Your task to perform on an android device: turn off translation in the chrome app Image 0: 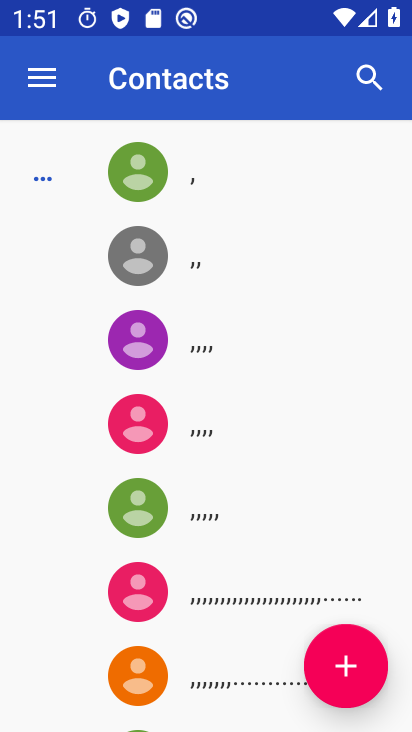
Step 0: press home button
Your task to perform on an android device: turn off translation in the chrome app Image 1: 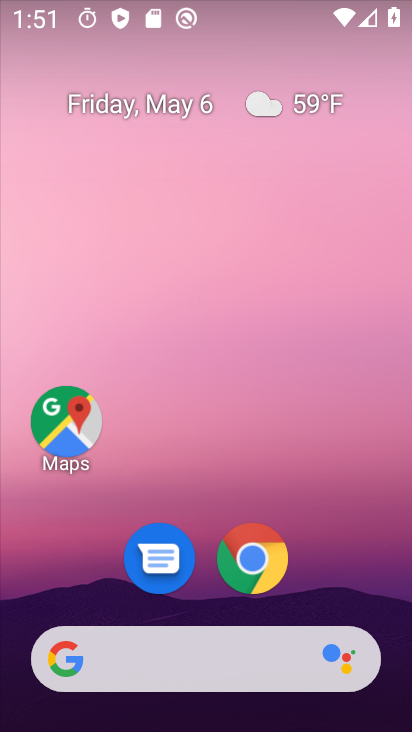
Step 1: drag from (206, 720) to (171, 265)
Your task to perform on an android device: turn off translation in the chrome app Image 2: 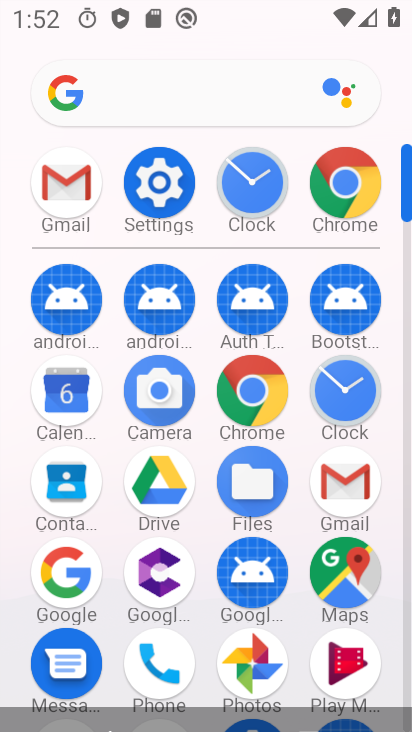
Step 2: click (349, 183)
Your task to perform on an android device: turn off translation in the chrome app Image 3: 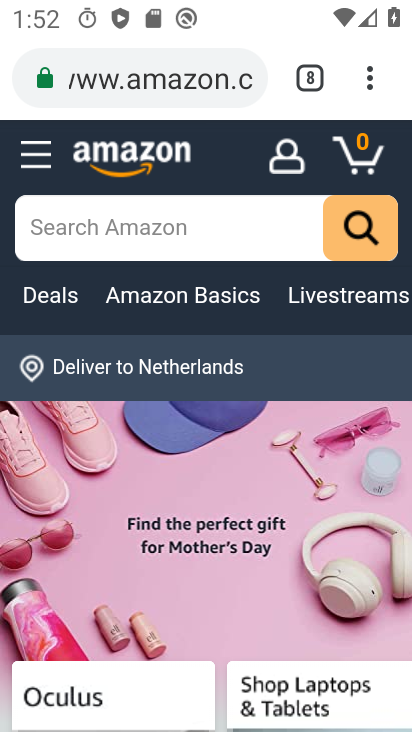
Step 3: drag from (368, 79) to (121, 601)
Your task to perform on an android device: turn off translation in the chrome app Image 4: 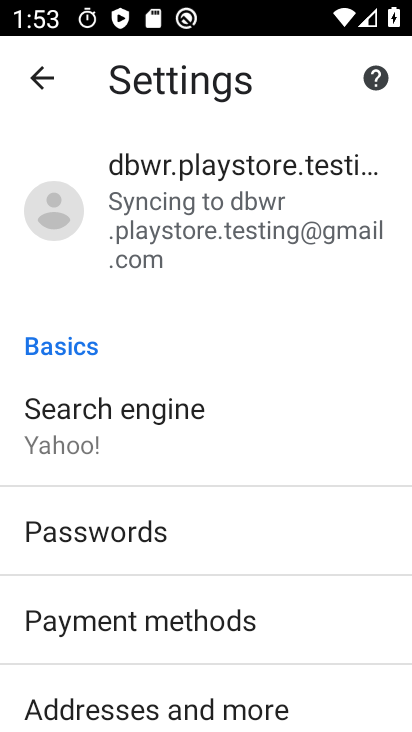
Step 4: drag from (177, 677) to (181, 286)
Your task to perform on an android device: turn off translation in the chrome app Image 5: 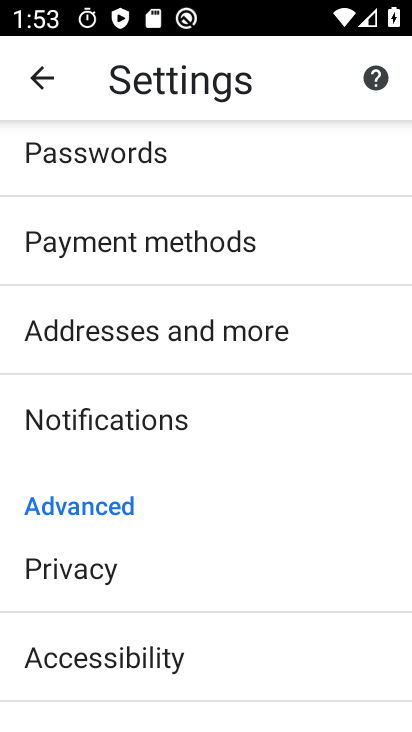
Step 5: drag from (166, 695) to (161, 349)
Your task to perform on an android device: turn off translation in the chrome app Image 6: 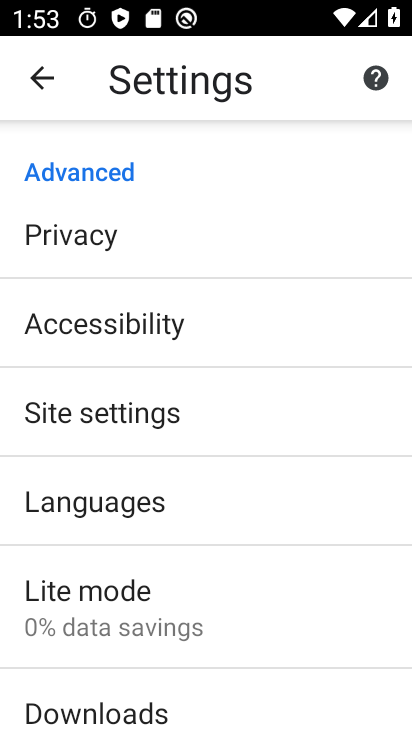
Step 6: click (91, 500)
Your task to perform on an android device: turn off translation in the chrome app Image 7: 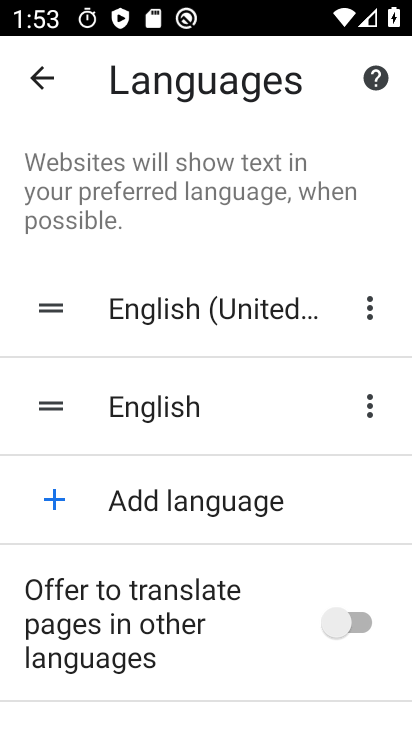
Step 7: task complete